Your task to perform on an android device: Open ESPN.com Image 0: 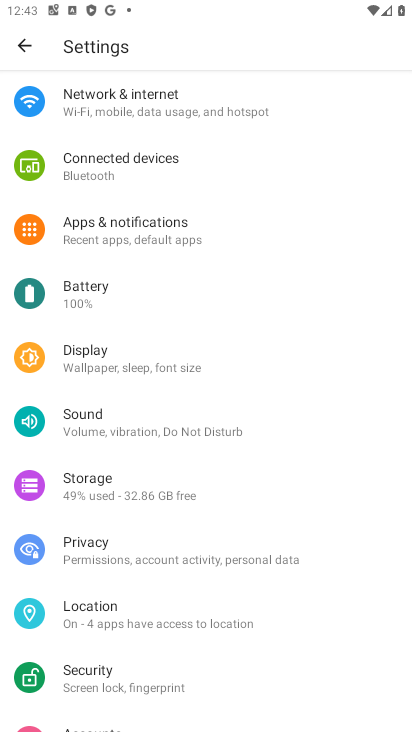
Step 0: press home button
Your task to perform on an android device: Open ESPN.com Image 1: 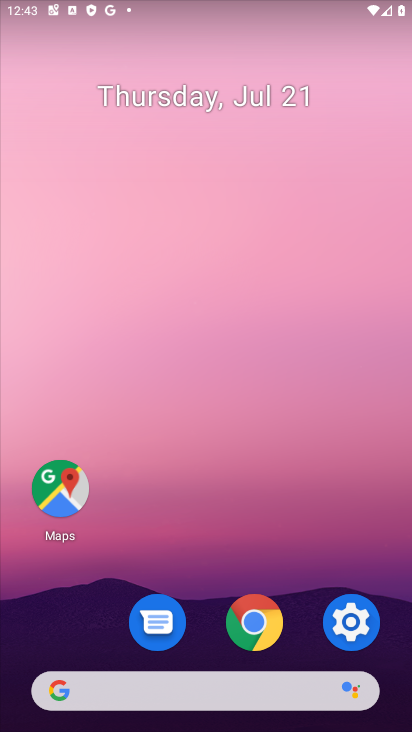
Step 1: click (261, 634)
Your task to perform on an android device: Open ESPN.com Image 2: 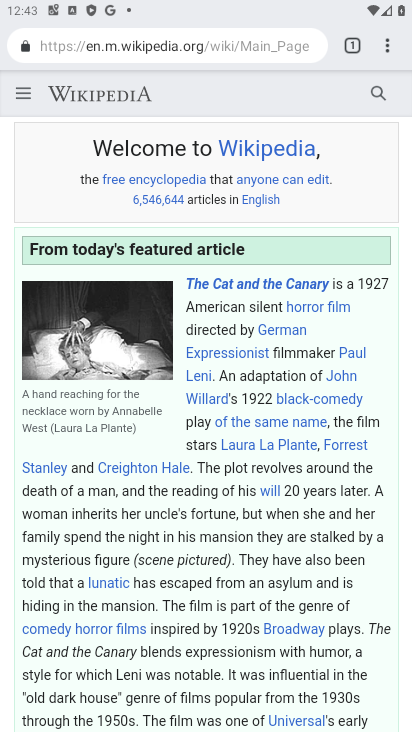
Step 2: click (158, 41)
Your task to perform on an android device: Open ESPN.com Image 3: 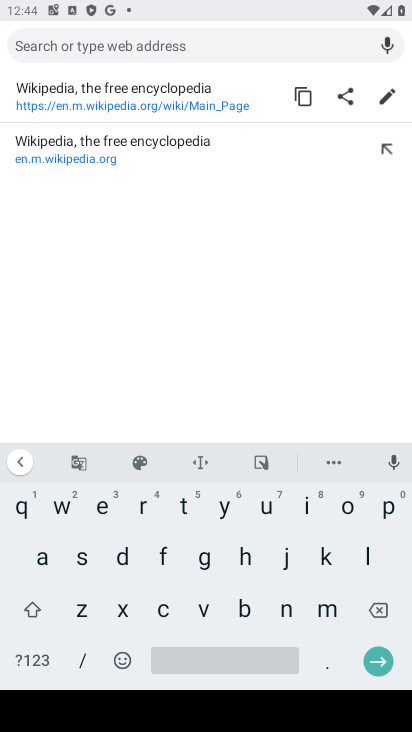
Step 3: click (98, 513)
Your task to perform on an android device: Open ESPN.com Image 4: 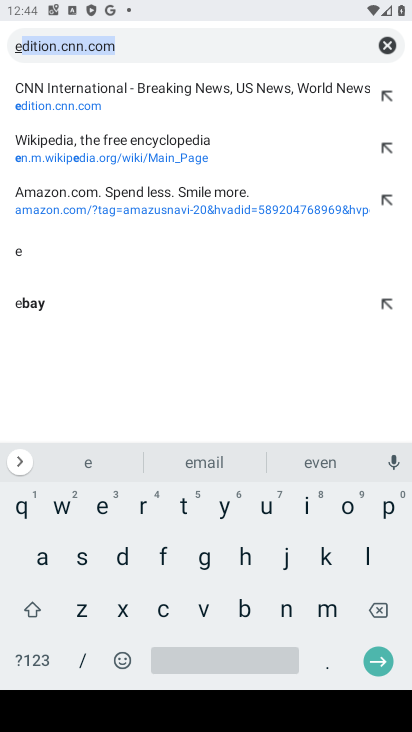
Step 4: click (80, 562)
Your task to perform on an android device: Open ESPN.com Image 5: 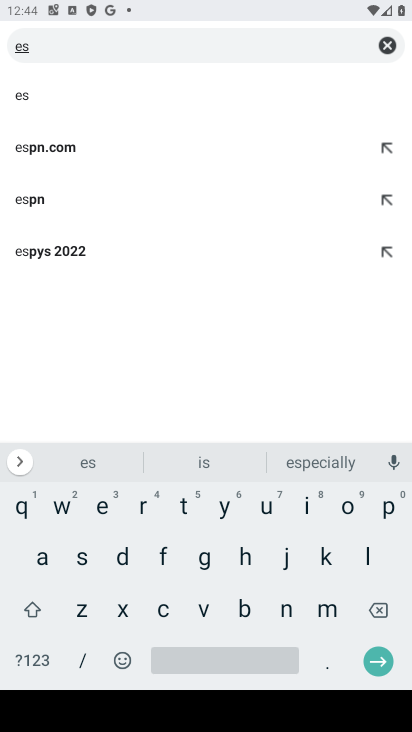
Step 5: click (71, 154)
Your task to perform on an android device: Open ESPN.com Image 6: 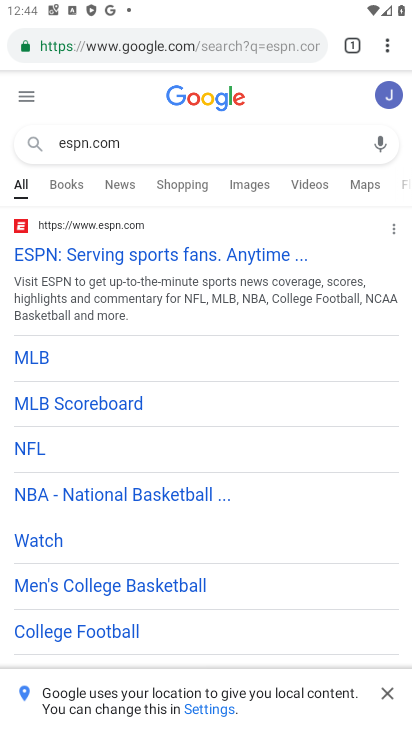
Step 6: click (92, 248)
Your task to perform on an android device: Open ESPN.com Image 7: 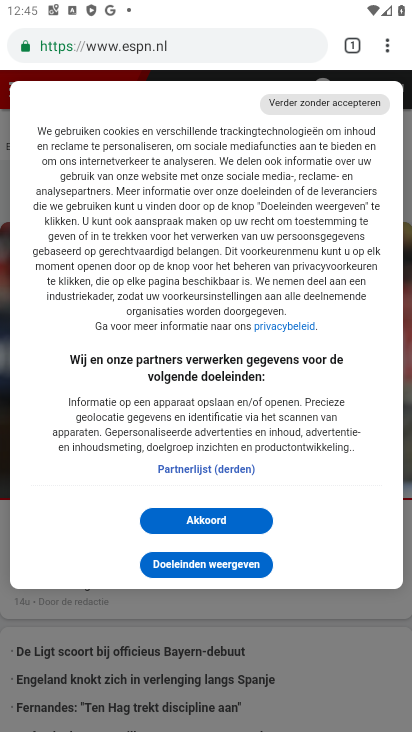
Step 7: click (242, 512)
Your task to perform on an android device: Open ESPN.com Image 8: 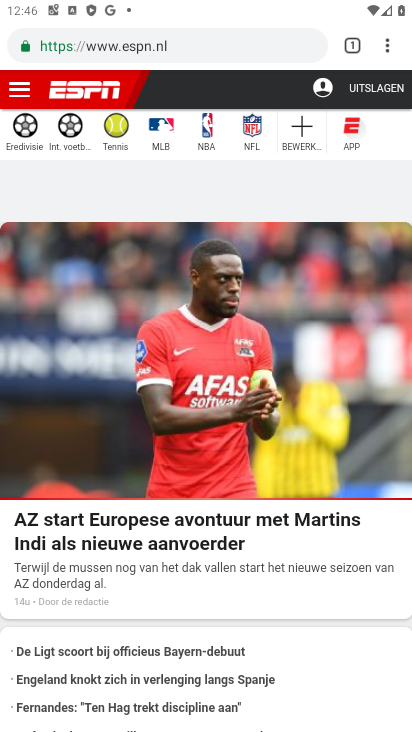
Step 8: task complete